Your task to perform on an android device: Find coffee shops on Maps Image 0: 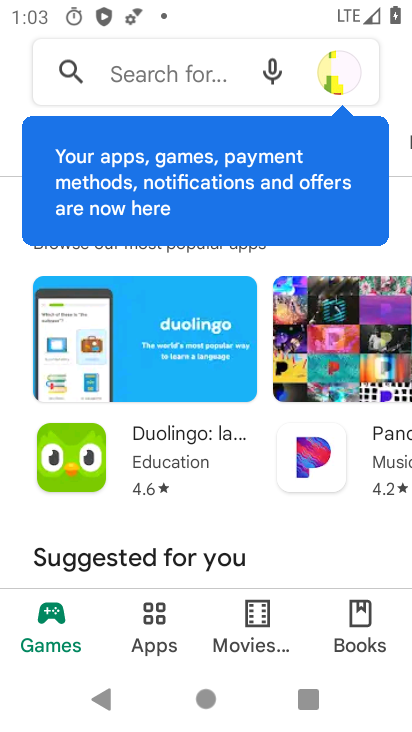
Step 0: press home button
Your task to perform on an android device: Find coffee shops on Maps Image 1: 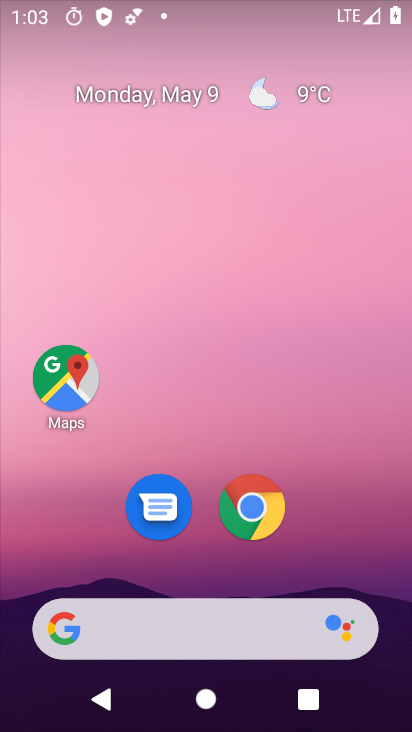
Step 1: drag from (235, 726) to (206, 141)
Your task to perform on an android device: Find coffee shops on Maps Image 2: 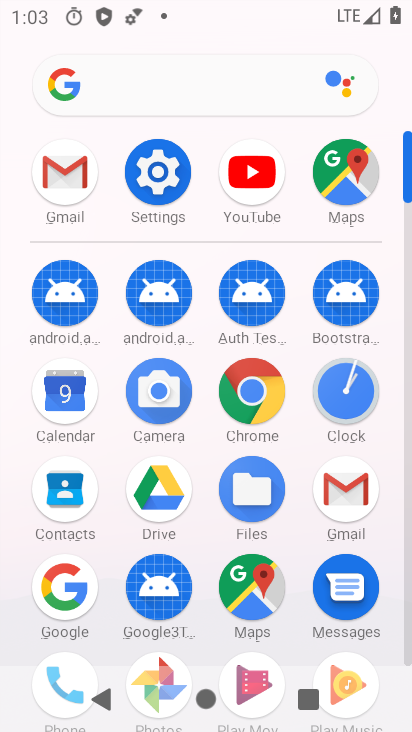
Step 2: click (250, 590)
Your task to perform on an android device: Find coffee shops on Maps Image 3: 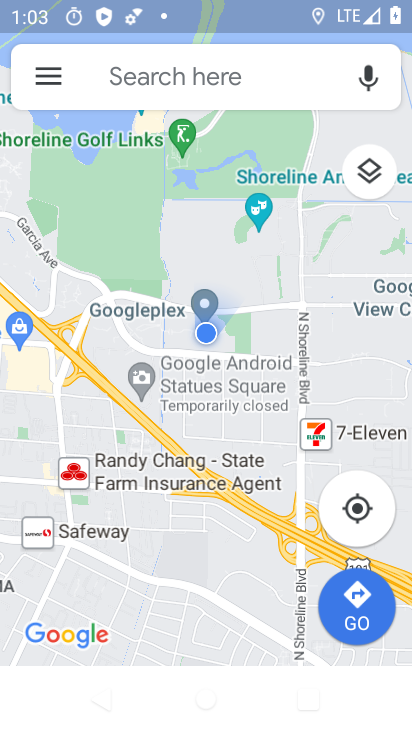
Step 3: click (222, 74)
Your task to perform on an android device: Find coffee shops on Maps Image 4: 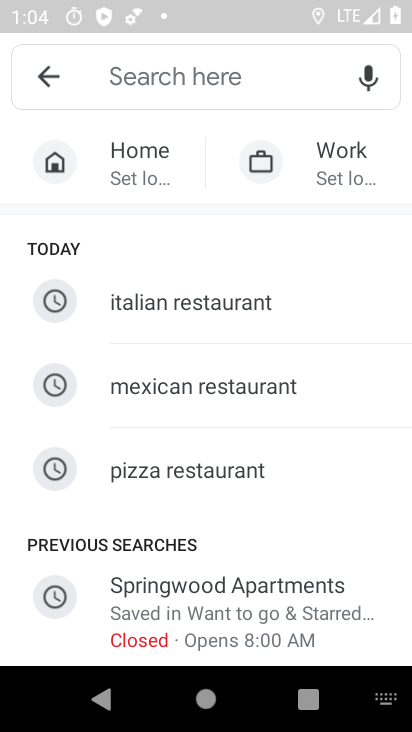
Step 4: type "coffee shops"
Your task to perform on an android device: Find coffee shops on Maps Image 5: 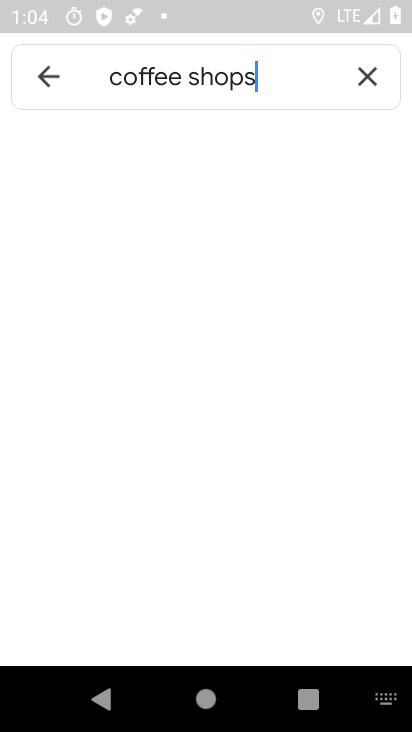
Step 5: type ""
Your task to perform on an android device: Find coffee shops on Maps Image 6: 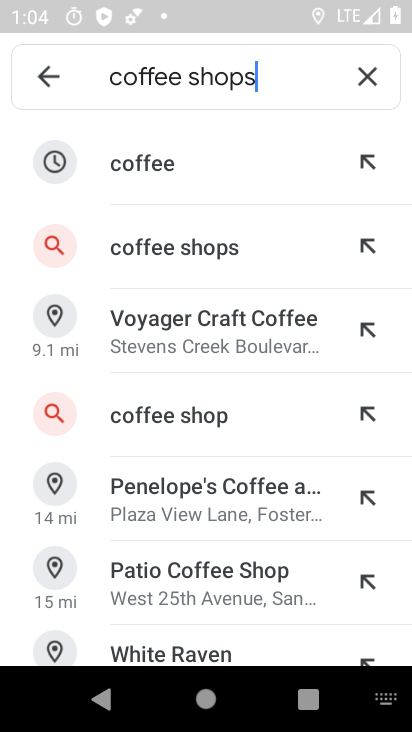
Step 6: click (196, 248)
Your task to perform on an android device: Find coffee shops on Maps Image 7: 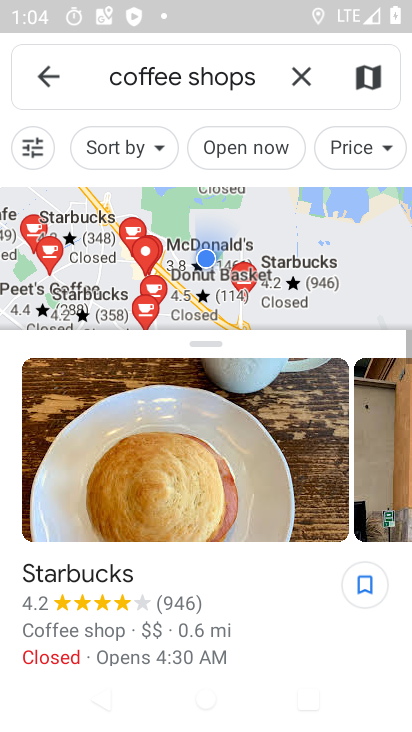
Step 7: task complete